Your task to perform on an android device: turn off notifications in google photos Image 0: 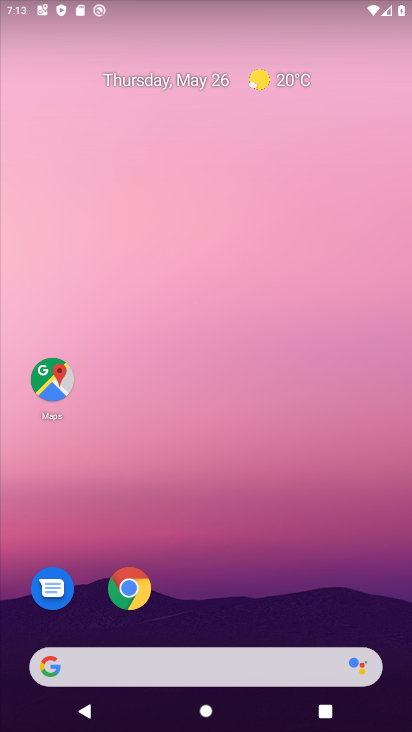
Step 0: drag from (346, 598) to (334, 35)
Your task to perform on an android device: turn off notifications in google photos Image 1: 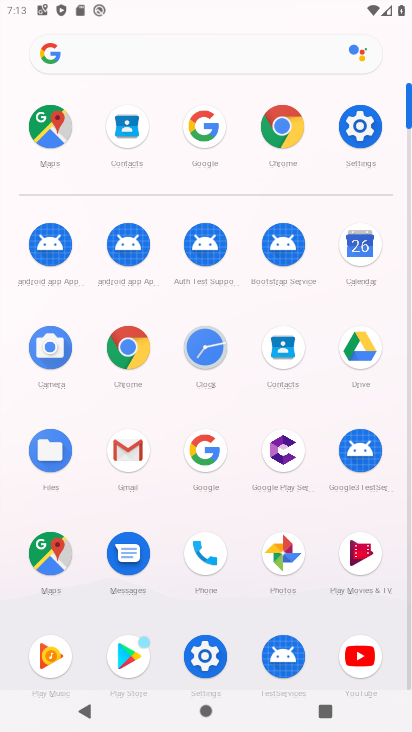
Step 1: click (272, 566)
Your task to perform on an android device: turn off notifications in google photos Image 2: 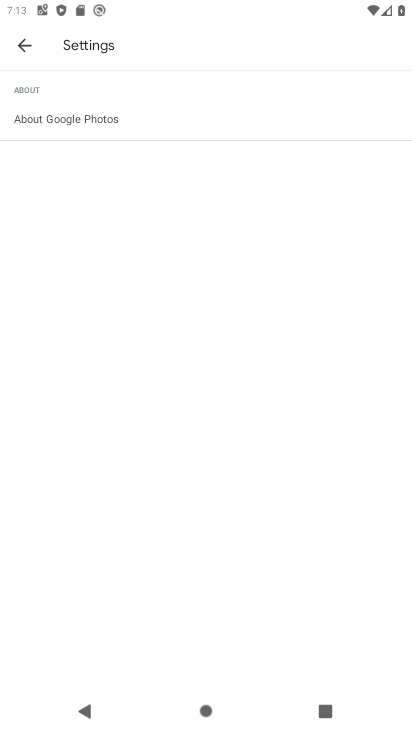
Step 2: press back button
Your task to perform on an android device: turn off notifications in google photos Image 3: 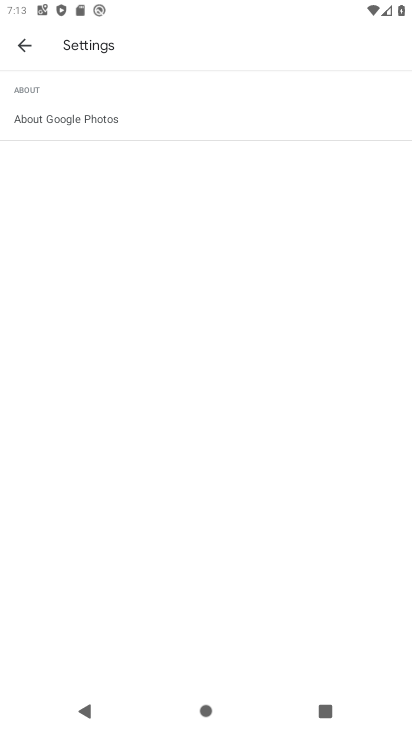
Step 3: press back button
Your task to perform on an android device: turn off notifications in google photos Image 4: 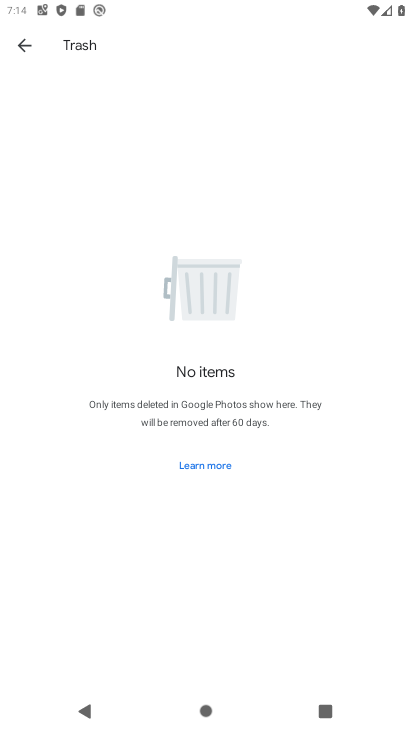
Step 4: press back button
Your task to perform on an android device: turn off notifications in google photos Image 5: 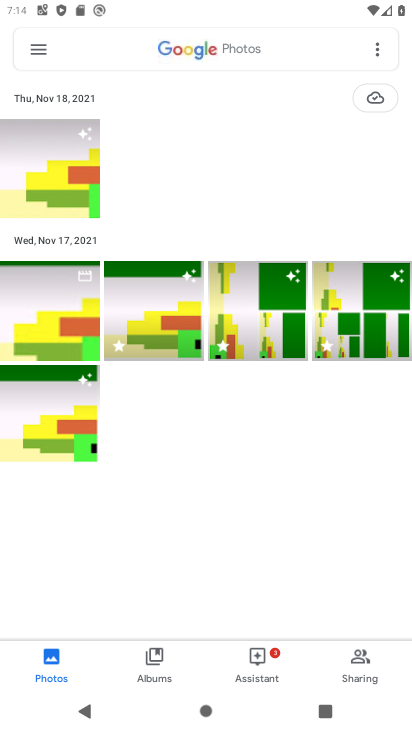
Step 5: click (43, 46)
Your task to perform on an android device: turn off notifications in google photos Image 6: 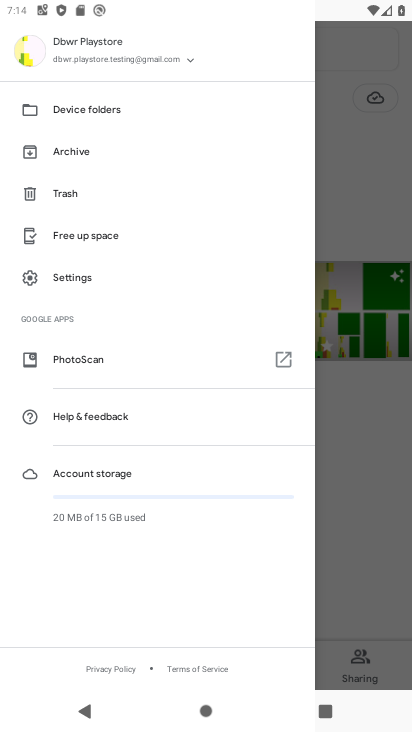
Step 6: click (71, 280)
Your task to perform on an android device: turn off notifications in google photos Image 7: 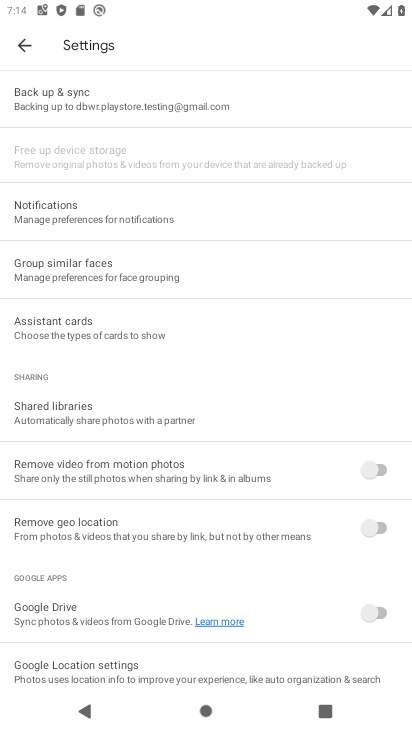
Step 7: click (146, 209)
Your task to perform on an android device: turn off notifications in google photos Image 8: 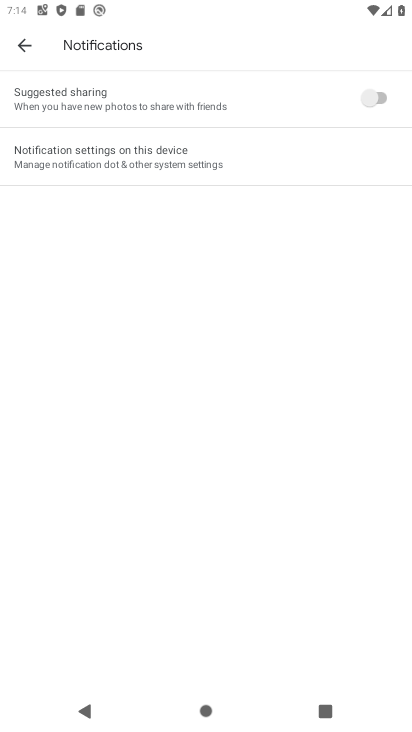
Step 8: task complete